Your task to perform on an android device: Show me popular games on the Play Store Image 0: 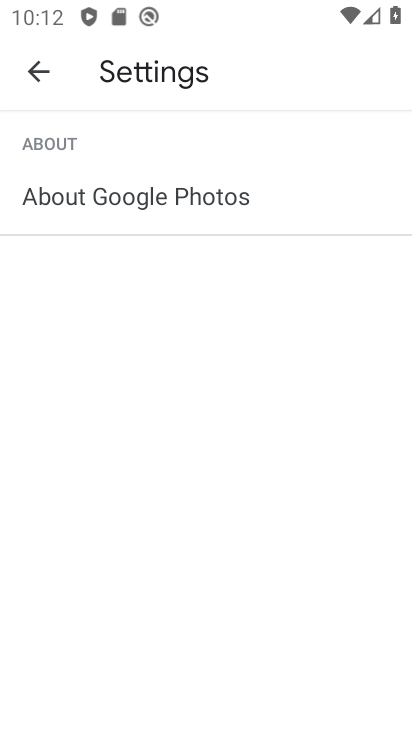
Step 0: press home button
Your task to perform on an android device: Show me popular games on the Play Store Image 1: 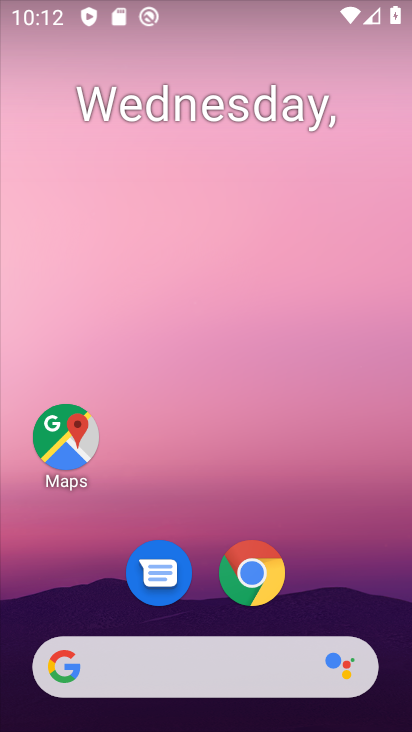
Step 1: drag from (378, 550) to (383, 276)
Your task to perform on an android device: Show me popular games on the Play Store Image 2: 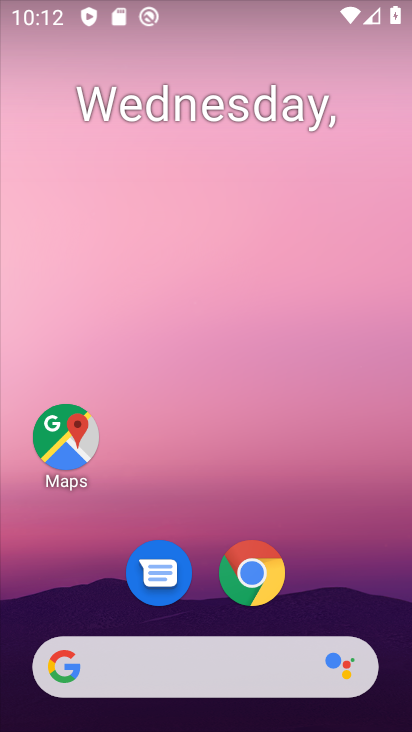
Step 2: drag from (380, 586) to (393, 118)
Your task to perform on an android device: Show me popular games on the Play Store Image 3: 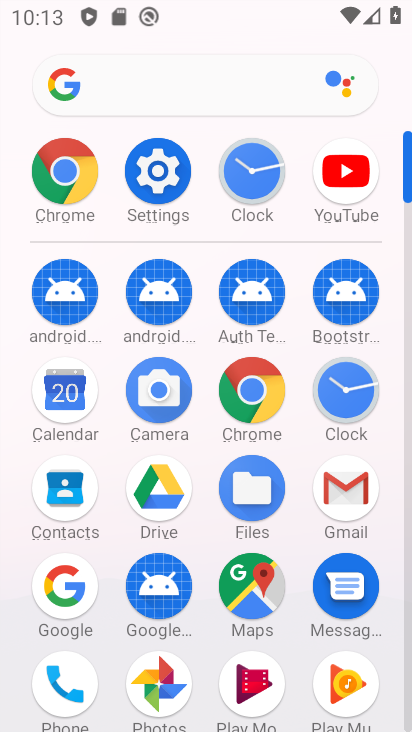
Step 3: click (408, 115)
Your task to perform on an android device: Show me popular games on the Play Store Image 4: 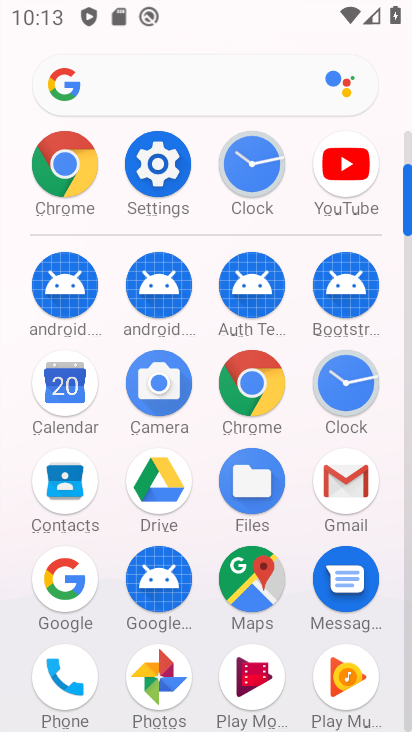
Step 4: click (394, 17)
Your task to perform on an android device: Show me popular games on the Play Store Image 5: 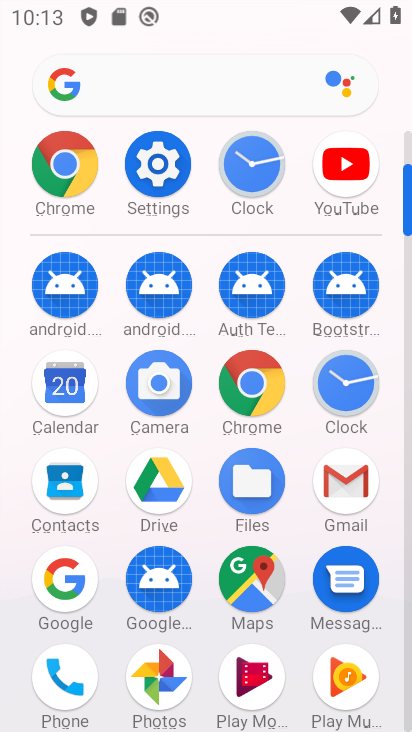
Step 5: click (406, 98)
Your task to perform on an android device: Show me popular games on the Play Store Image 6: 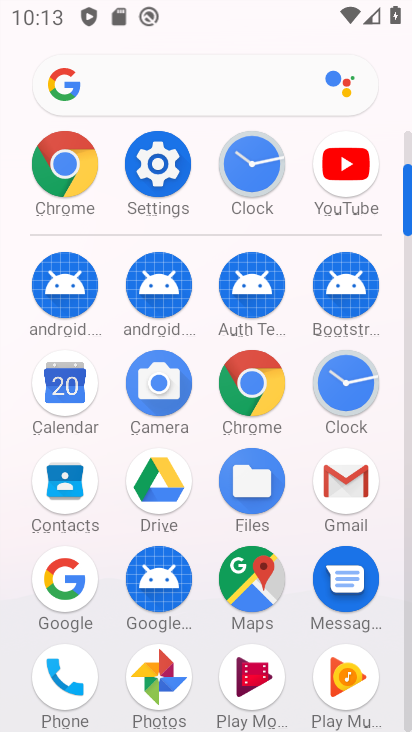
Step 6: click (405, 172)
Your task to perform on an android device: Show me popular games on the Play Store Image 7: 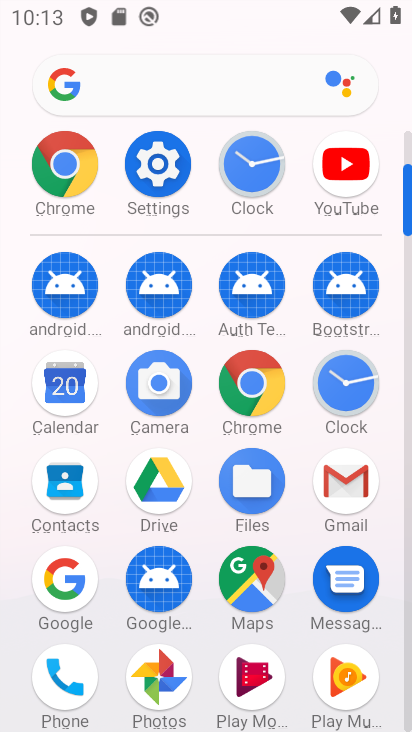
Step 7: click (404, 86)
Your task to perform on an android device: Show me popular games on the Play Store Image 8: 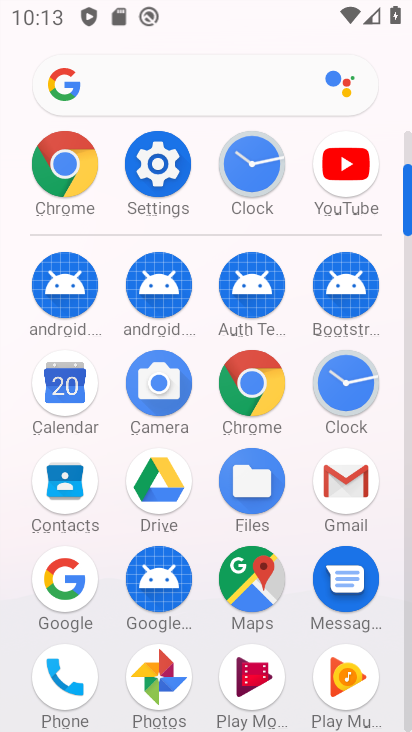
Step 8: drag from (409, 171) to (408, 106)
Your task to perform on an android device: Show me popular games on the Play Store Image 9: 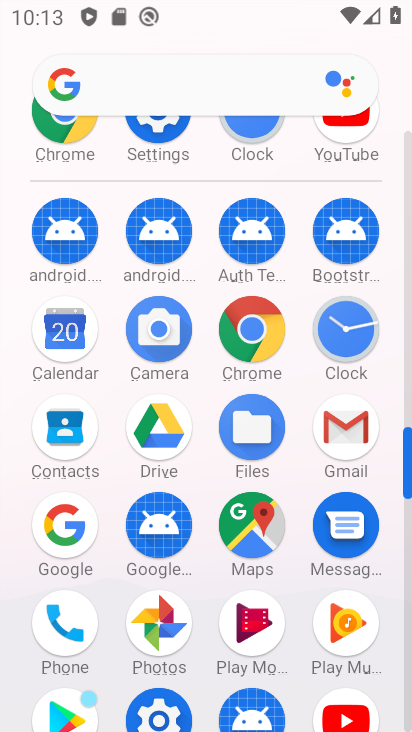
Step 9: click (54, 711)
Your task to perform on an android device: Show me popular games on the Play Store Image 10: 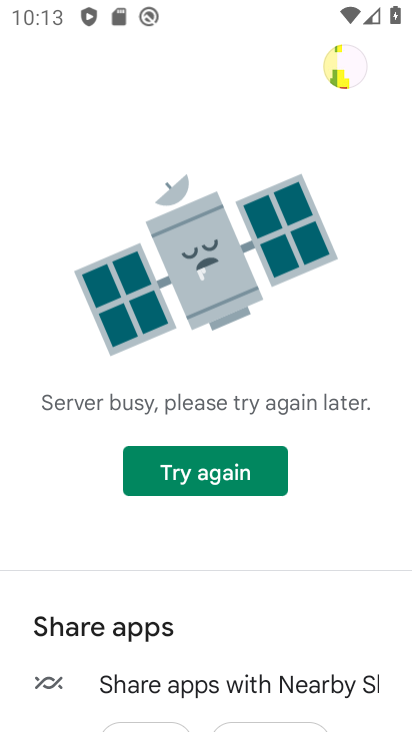
Step 10: click (221, 462)
Your task to perform on an android device: Show me popular games on the Play Store Image 11: 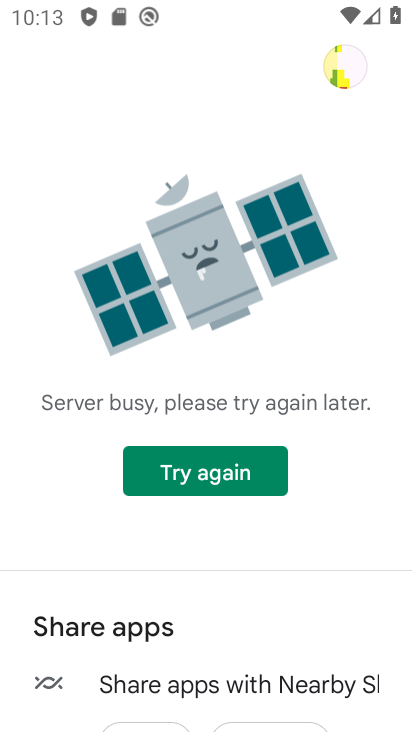
Step 11: click (221, 462)
Your task to perform on an android device: Show me popular games on the Play Store Image 12: 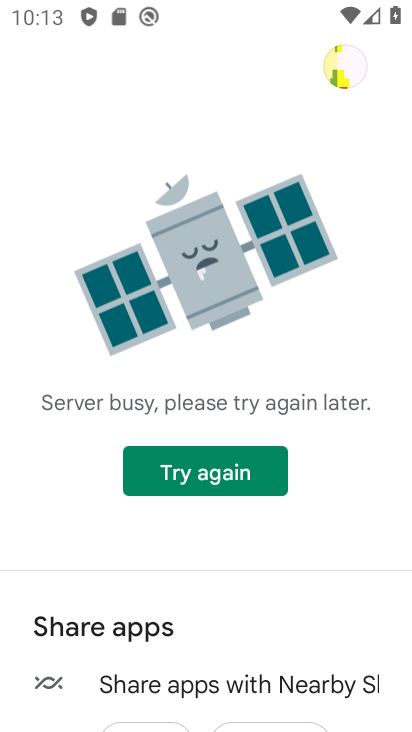
Step 12: click (221, 462)
Your task to perform on an android device: Show me popular games on the Play Store Image 13: 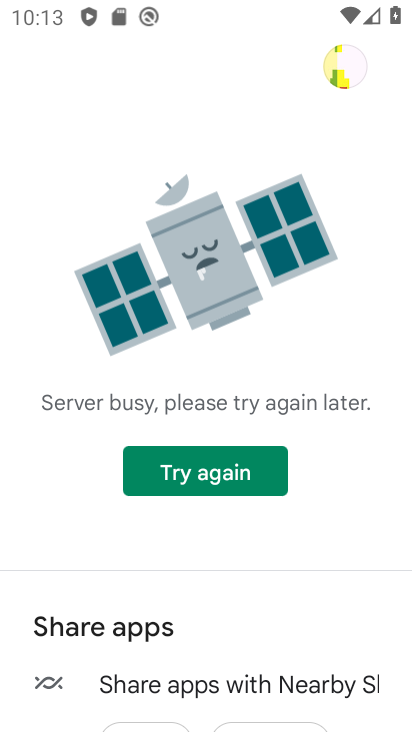
Step 13: click (221, 462)
Your task to perform on an android device: Show me popular games on the Play Store Image 14: 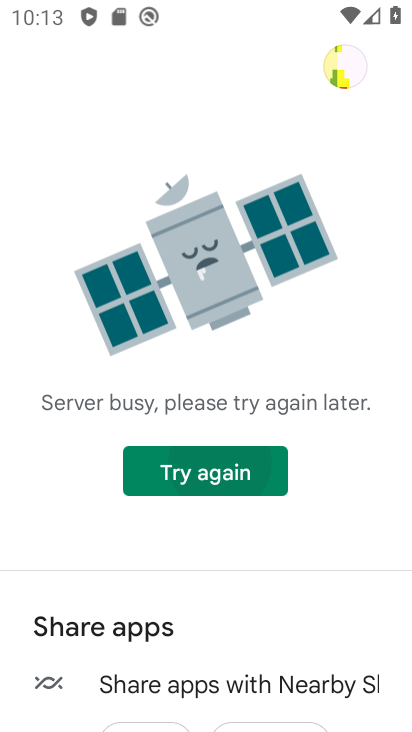
Step 14: click (221, 462)
Your task to perform on an android device: Show me popular games on the Play Store Image 15: 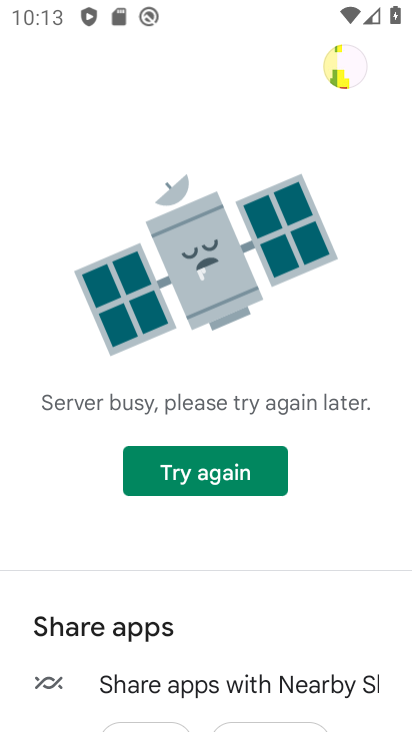
Step 15: task complete